Your task to perform on an android device: turn off location history Image 0: 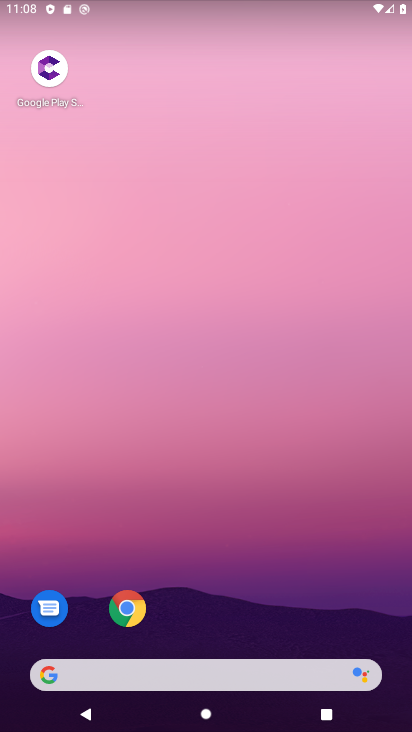
Step 0: drag from (234, 601) to (276, 3)
Your task to perform on an android device: turn off location history Image 1: 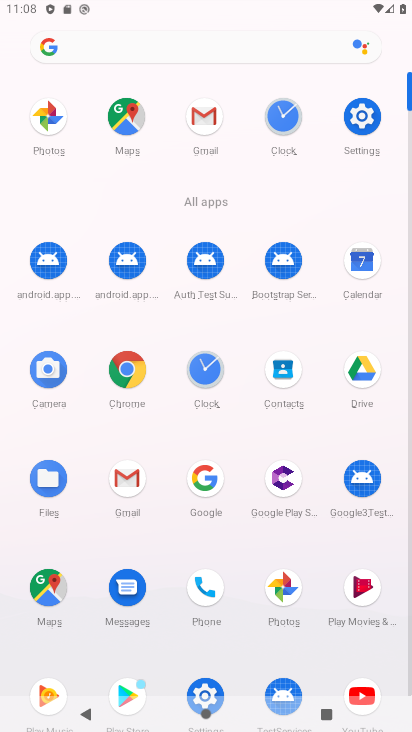
Step 1: click (205, 680)
Your task to perform on an android device: turn off location history Image 2: 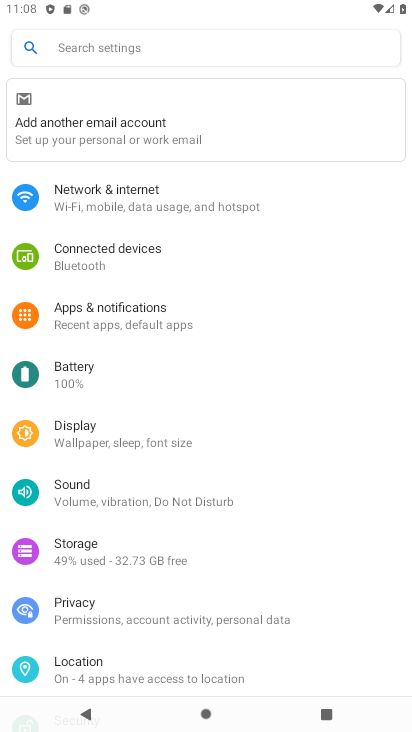
Step 2: click (93, 672)
Your task to perform on an android device: turn off location history Image 3: 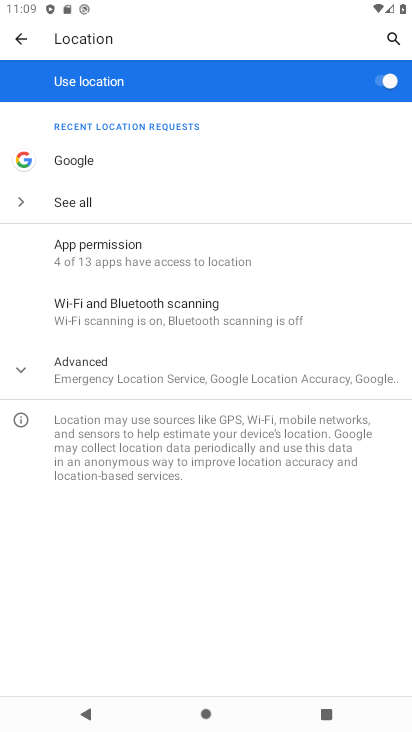
Step 3: click (153, 374)
Your task to perform on an android device: turn off location history Image 4: 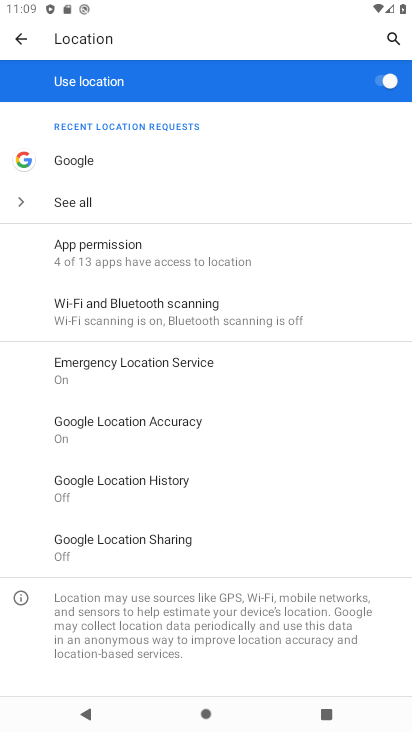
Step 4: click (137, 496)
Your task to perform on an android device: turn off location history Image 5: 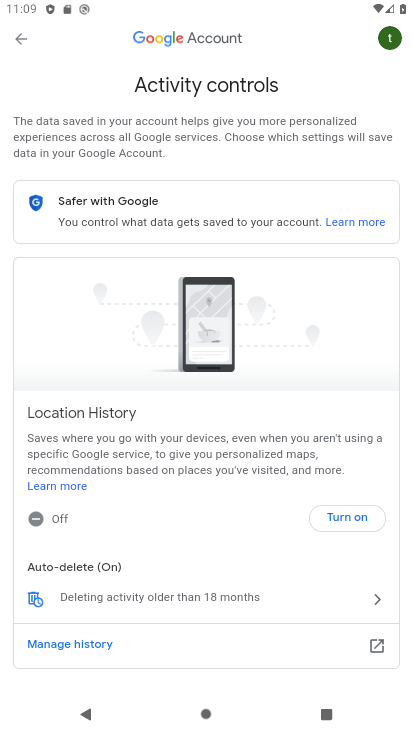
Step 5: task complete